Your task to perform on an android device: What's on my calendar tomorrow? Image 0: 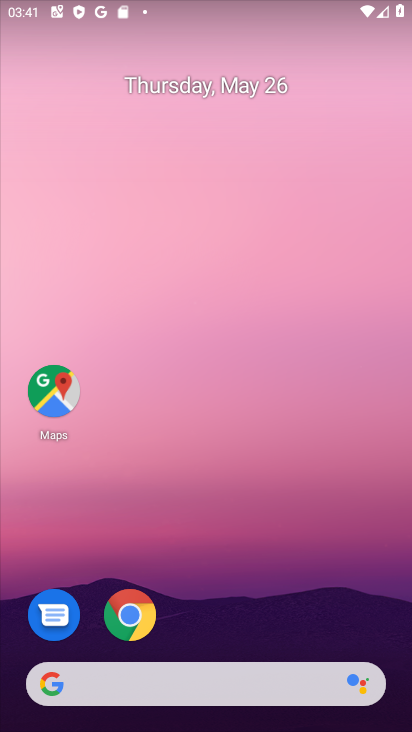
Step 0: drag from (194, 560) to (213, 40)
Your task to perform on an android device: What's on my calendar tomorrow? Image 1: 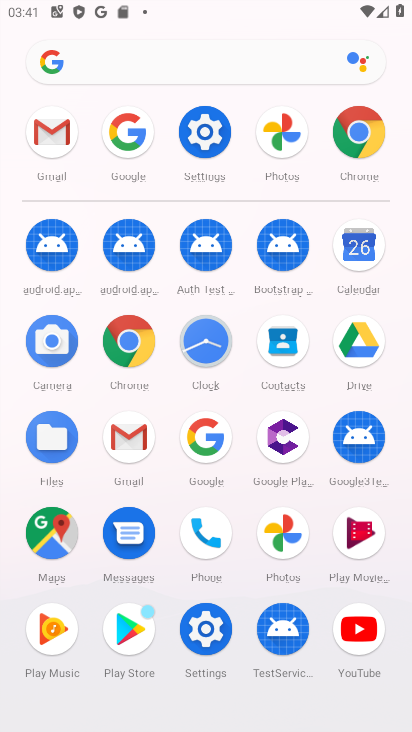
Step 1: click (354, 370)
Your task to perform on an android device: What's on my calendar tomorrow? Image 2: 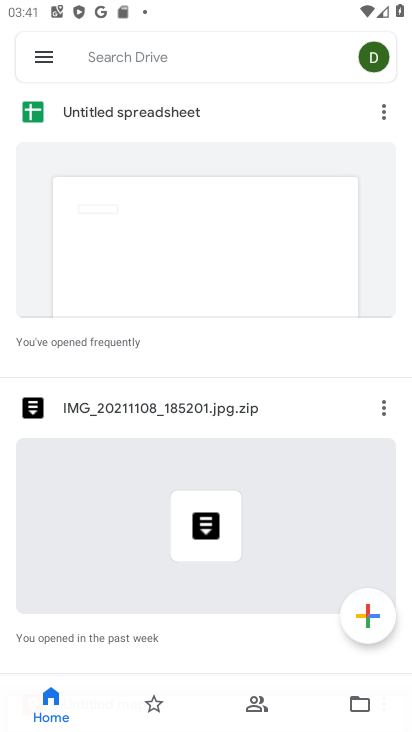
Step 2: press back button
Your task to perform on an android device: What's on my calendar tomorrow? Image 3: 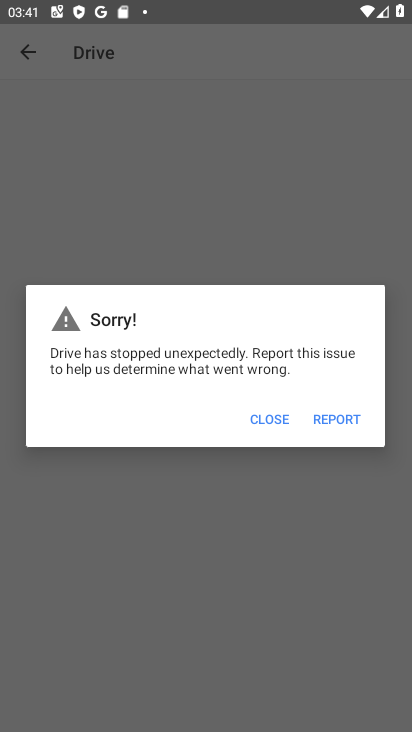
Step 3: press home button
Your task to perform on an android device: What's on my calendar tomorrow? Image 4: 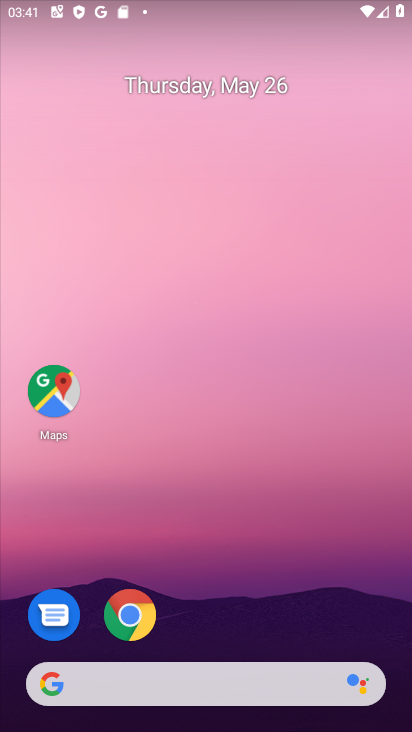
Step 4: drag from (322, 596) to (333, 185)
Your task to perform on an android device: What's on my calendar tomorrow? Image 5: 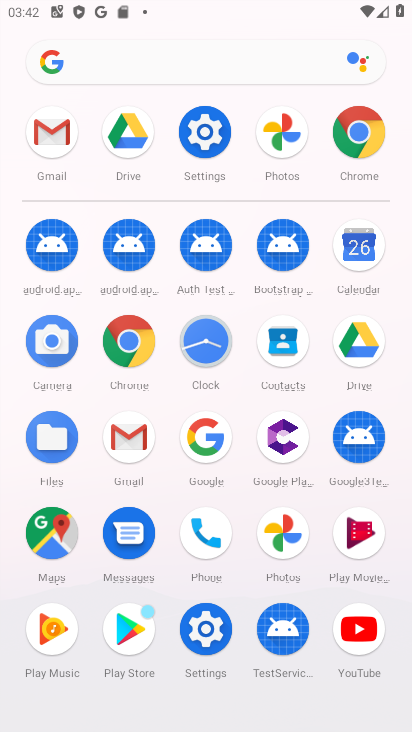
Step 5: click (358, 275)
Your task to perform on an android device: What's on my calendar tomorrow? Image 6: 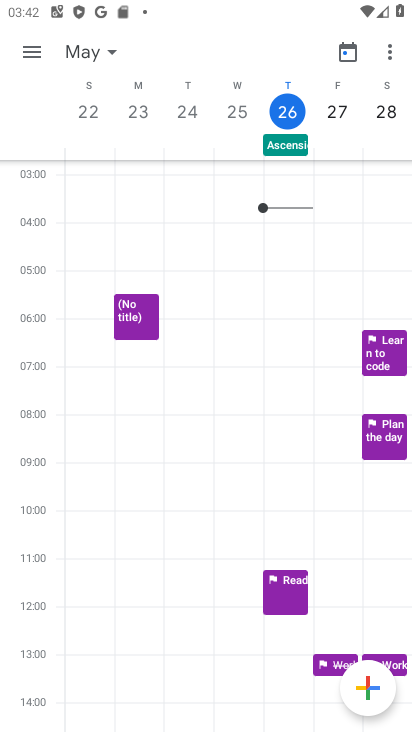
Step 6: click (92, 53)
Your task to perform on an android device: What's on my calendar tomorrow? Image 7: 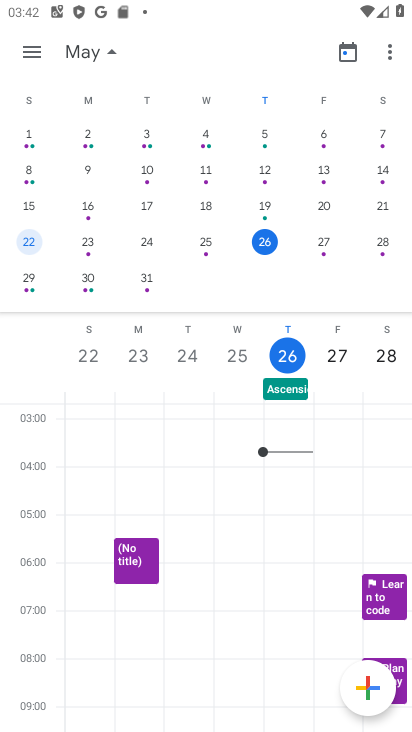
Step 7: click (37, 46)
Your task to perform on an android device: What's on my calendar tomorrow? Image 8: 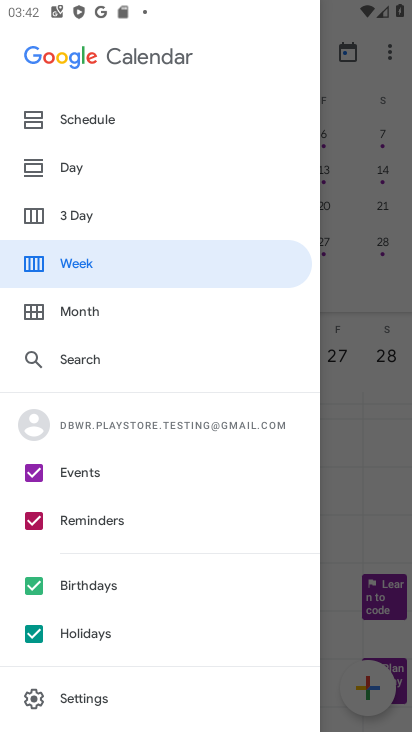
Step 8: click (94, 127)
Your task to perform on an android device: What's on my calendar tomorrow? Image 9: 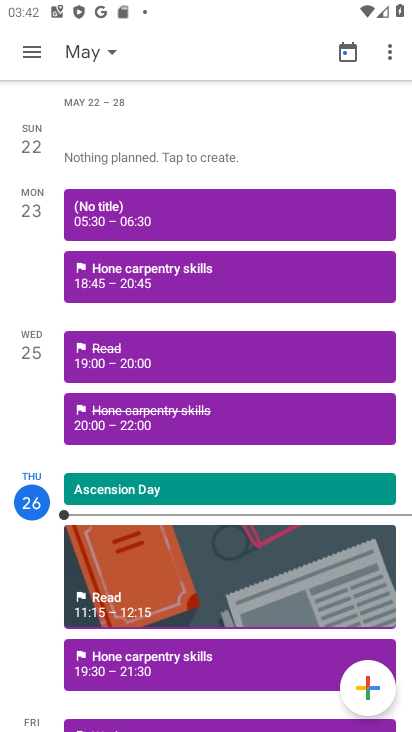
Step 9: task complete